Your task to perform on an android device: toggle sleep mode Image 0: 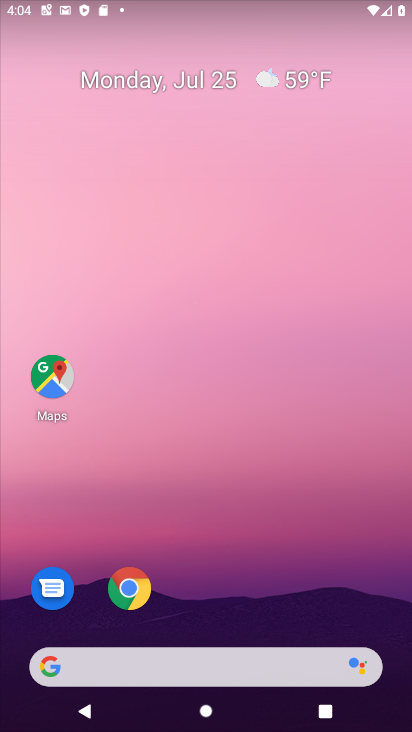
Step 0: drag from (319, 525) to (273, 47)
Your task to perform on an android device: toggle sleep mode Image 1: 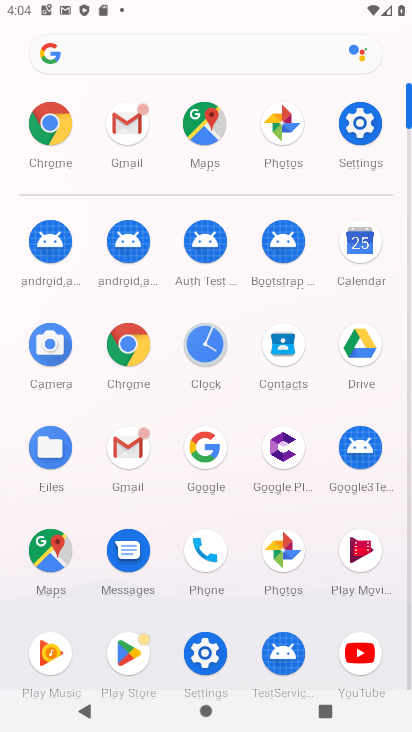
Step 1: click (205, 661)
Your task to perform on an android device: toggle sleep mode Image 2: 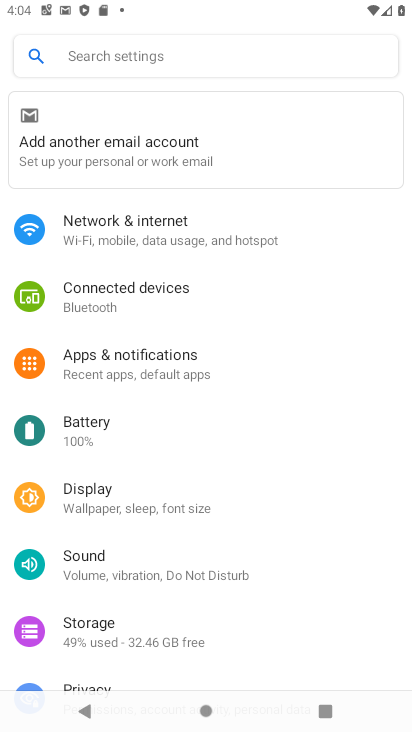
Step 2: click (120, 497)
Your task to perform on an android device: toggle sleep mode Image 3: 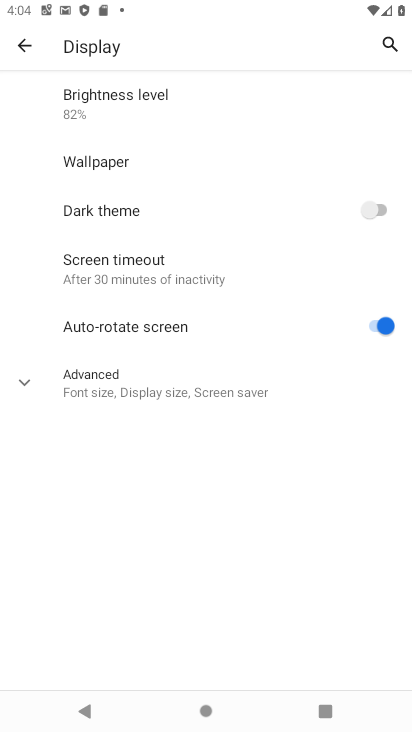
Step 3: click (101, 265)
Your task to perform on an android device: toggle sleep mode Image 4: 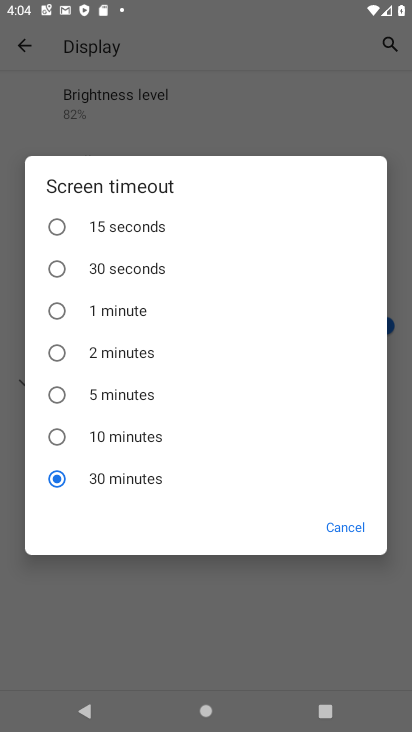
Step 4: click (87, 346)
Your task to perform on an android device: toggle sleep mode Image 5: 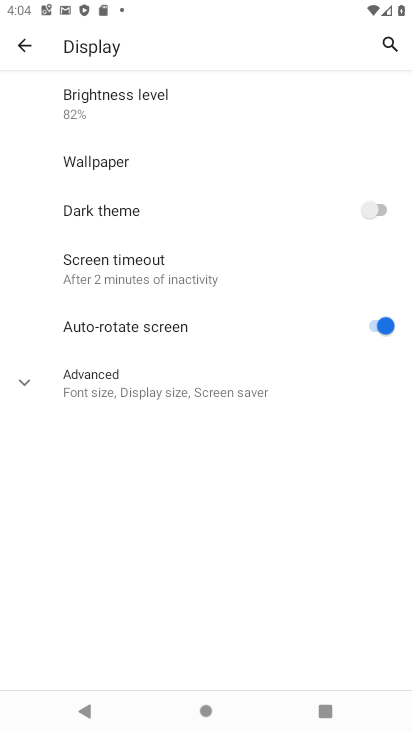
Step 5: task complete